Your task to perform on an android device: Open Wikipedia Image 0: 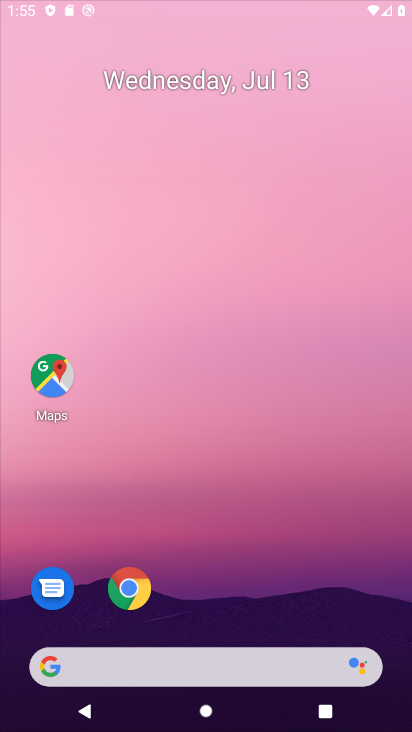
Step 0: click (305, 198)
Your task to perform on an android device: Open Wikipedia Image 1: 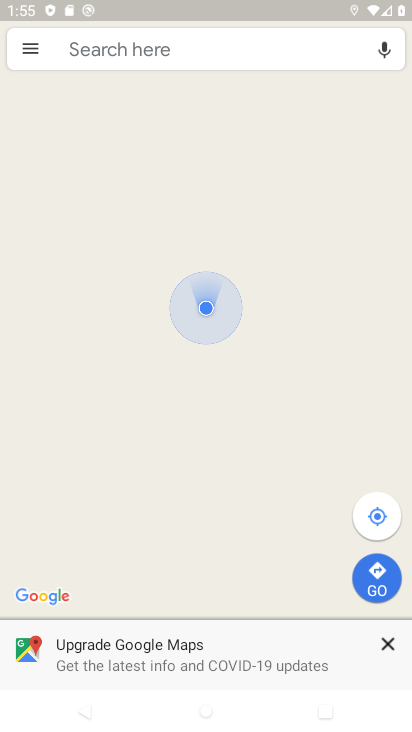
Step 1: press home button
Your task to perform on an android device: Open Wikipedia Image 2: 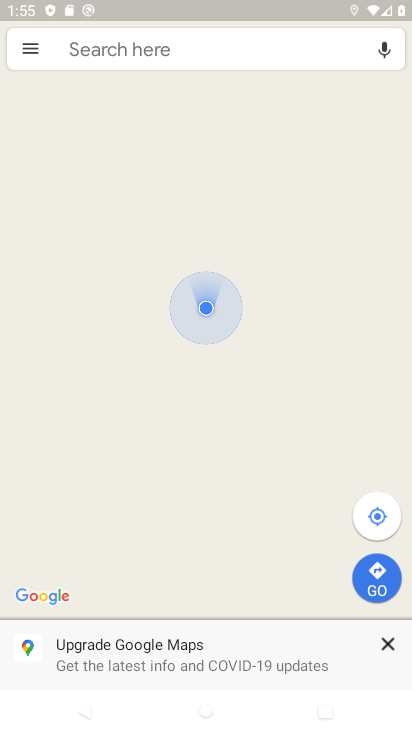
Step 2: drag from (275, 287) to (296, 162)
Your task to perform on an android device: Open Wikipedia Image 3: 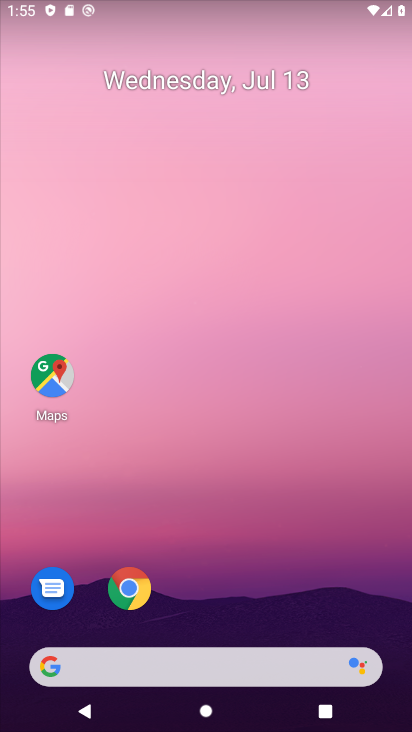
Step 3: drag from (197, 602) to (242, 153)
Your task to perform on an android device: Open Wikipedia Image 4: 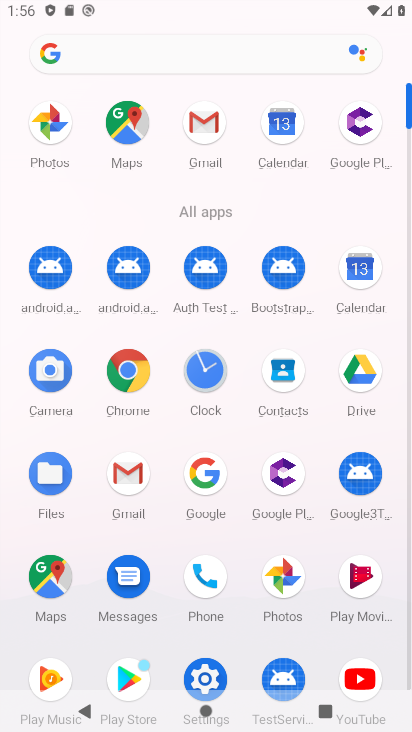
Step 4: click (203, 50)
Your task to perform on an android device: Open Wikipedia Image 5: 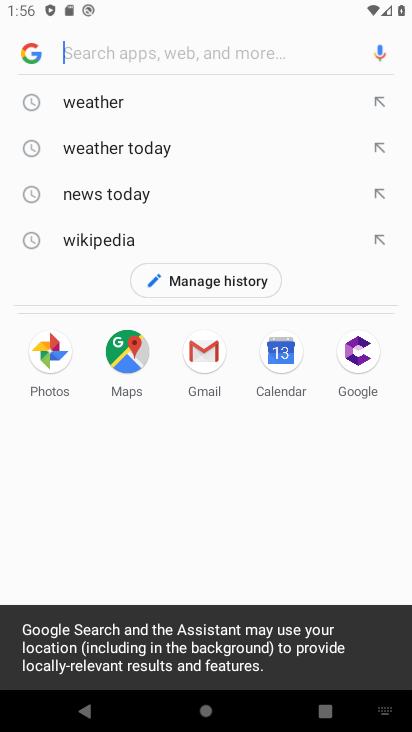
Step 5: click (69, 245)
Your task to perform on an android device: Open Wikipedia Image 6: 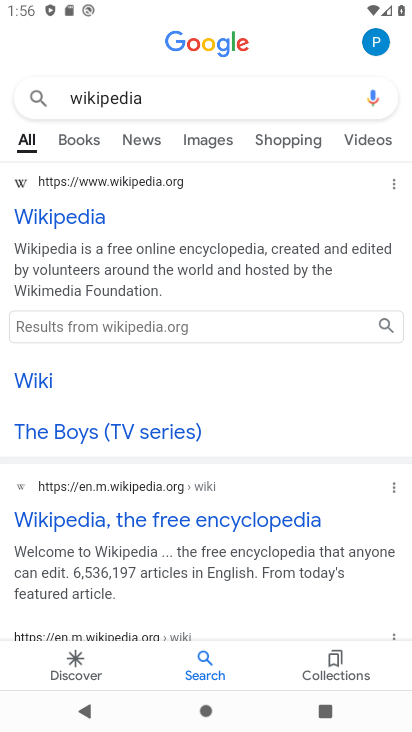
Step 6: drag from (216, 144) to (275, 587)
Your task to perform on an android device: Open Wikipedia Image 7: 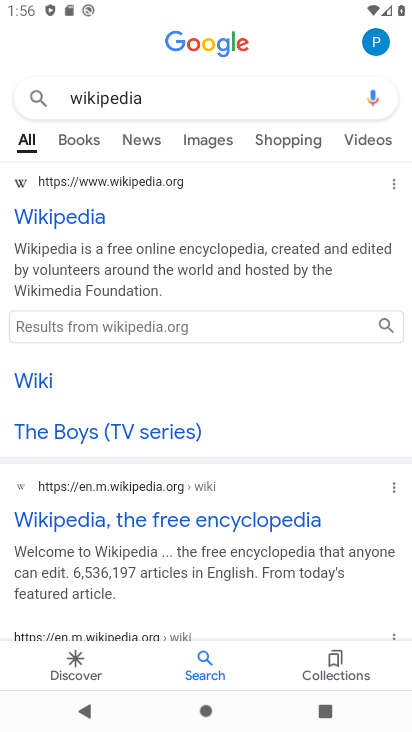
Step 7: click (76, 213)
Your task to perform on an android device: Open Wikipedia Image 8: 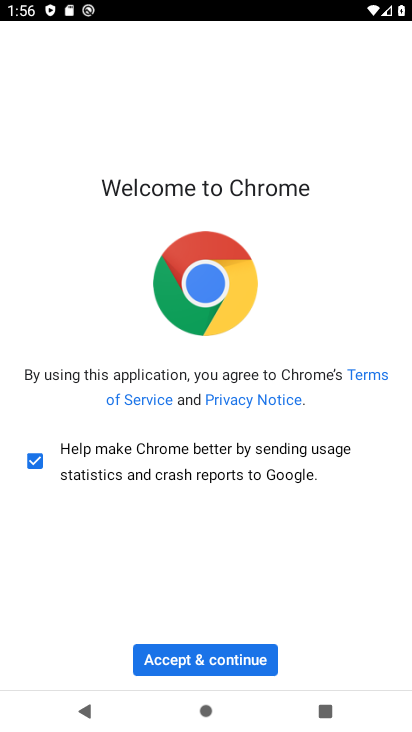
Step 8: drag from (187, 237) to (293, 573)
Your task to perform on an android device: Open Wikipedia Image 9: 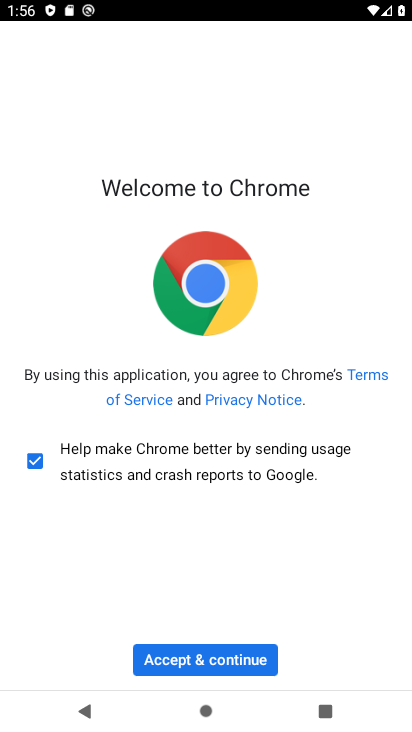
Step 9: click (192, 659)
Your task to perform on an android device: Open Wikipedia Image 10: 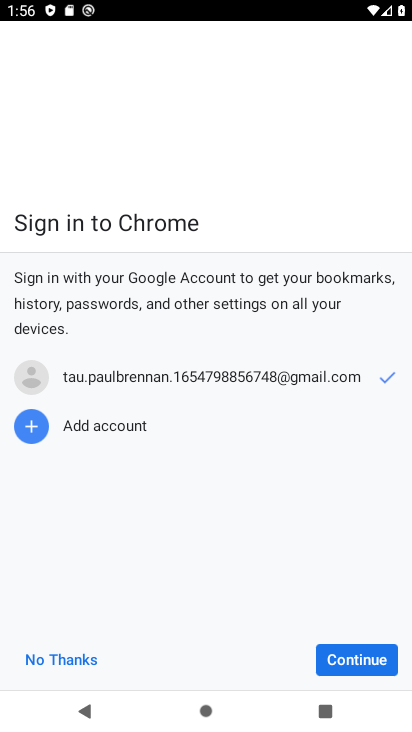
Step 10: click (343, 655)
Your task to perform on an android device: Open Wikipedia Image 11: 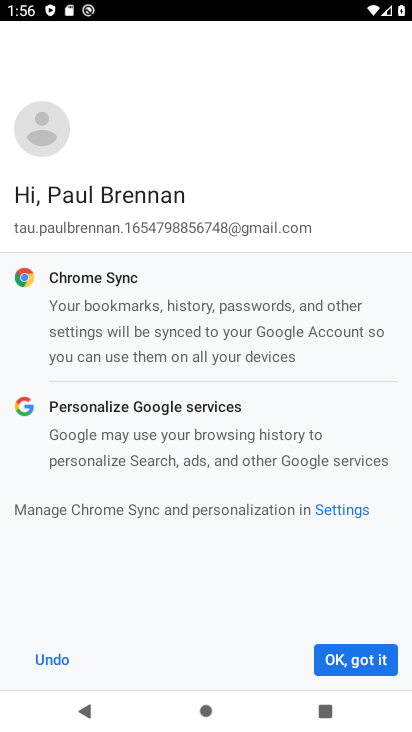
Step 11: click (331, 649)
Your task to perform on an android device: Open Wikipedia Image 12: 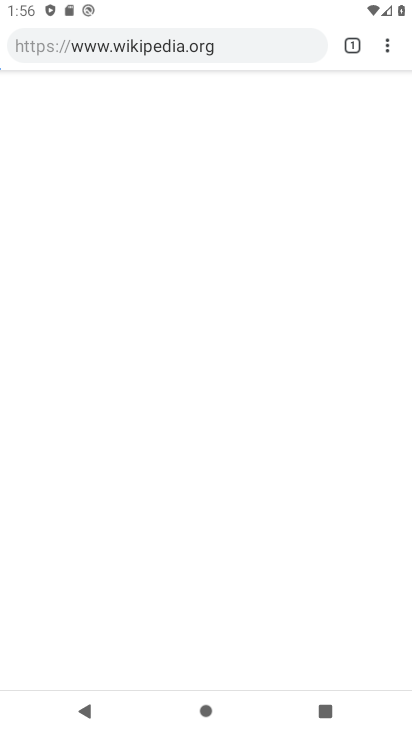
Step 12: task complete